Your task to perform on an android device: turn on the 24-hour format for clock Image 0: 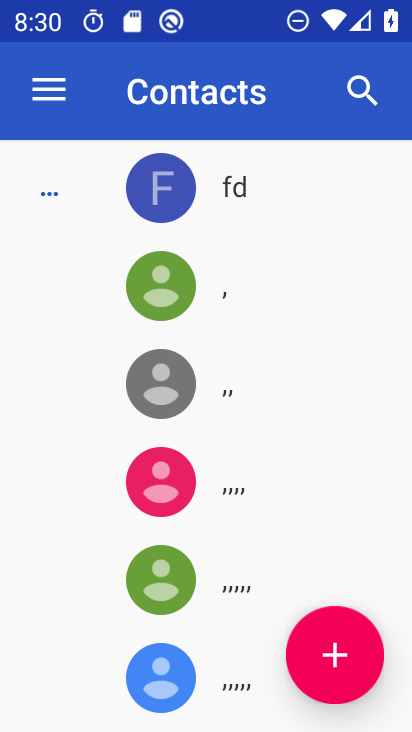
Step 0: press home button
Your task to perform on an android device: turn on the 24-hour format for clock Image 1: 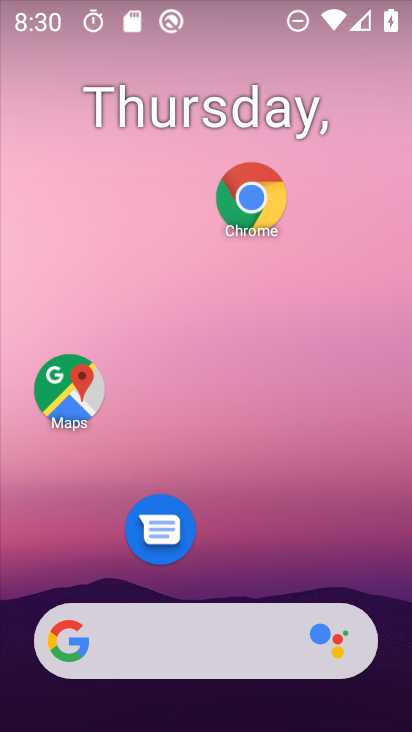
Step 1: drag from (220, 573) to (224, 85)
Your task to perform on an android device: turn on the 24-hour format for clock Image 2: 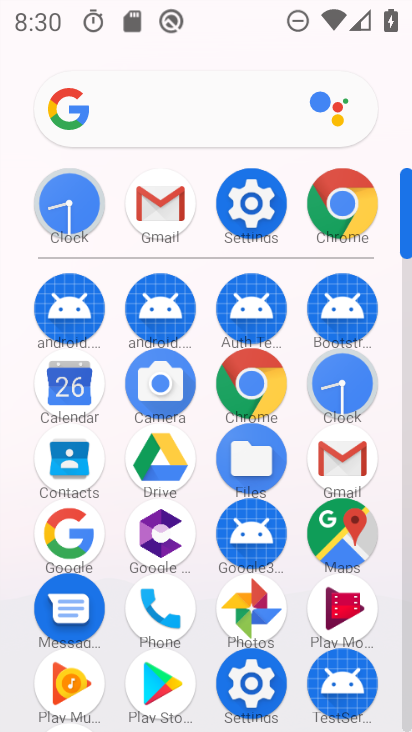
Step 2: click (59, 229)
Your task to perform on an android device: turn on the 24-hour format for clock Image 3: 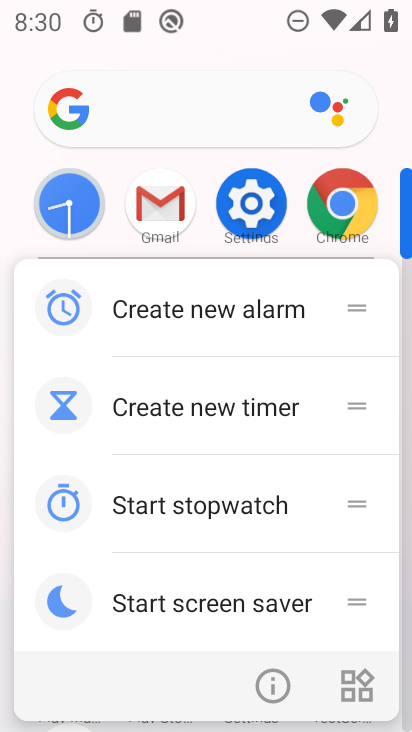
Step 3: click (236, 200)
Your task to perform on an android device: turn on the 24-hour format for clock Image 4: 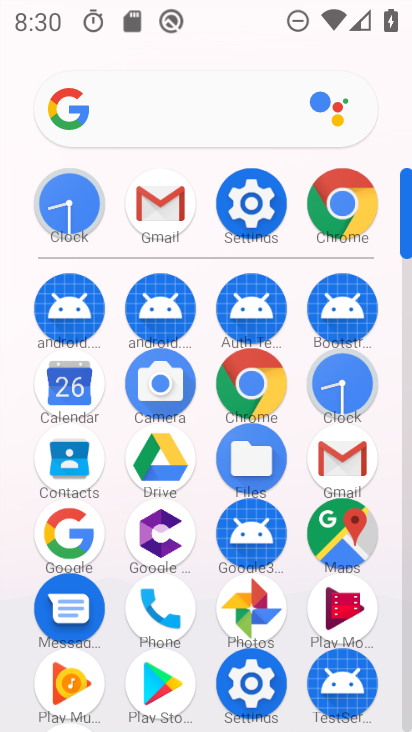
Step 4: click (76, 207)
Your task to perform on an android device: turn on the 24-hour format for clock Image 5: 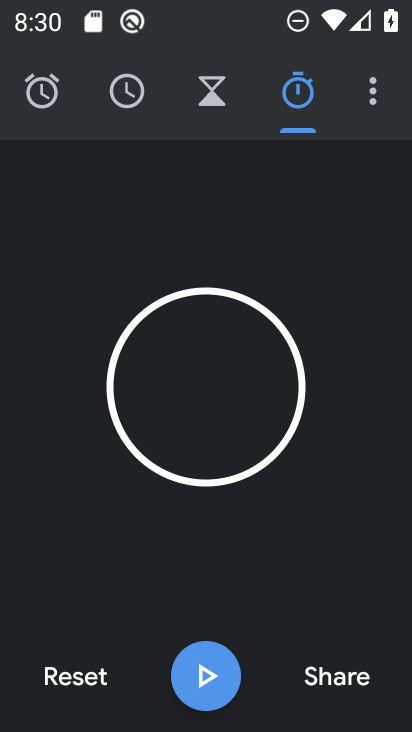
Step 5: click (367, 86)
Your task to perform on an android device: turn on the 24-hour format for clock Image 6: 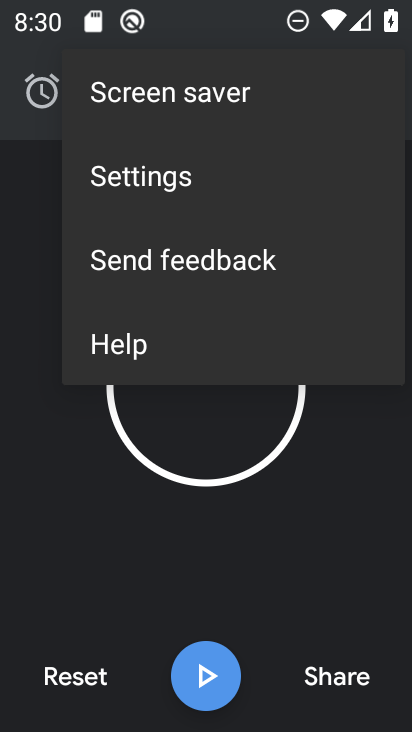
Step 6: click (216, 192)
Your task to perform on an android device: turn on the 24-hour format for clock Image 7: 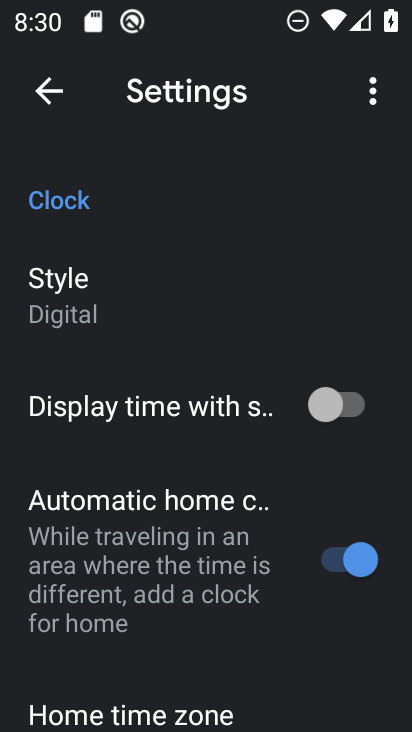
Step 7: drag from (217, 624) to (272, 298)
Your task to perform on an android device: turn on the 24-hour format for clock Image 8: 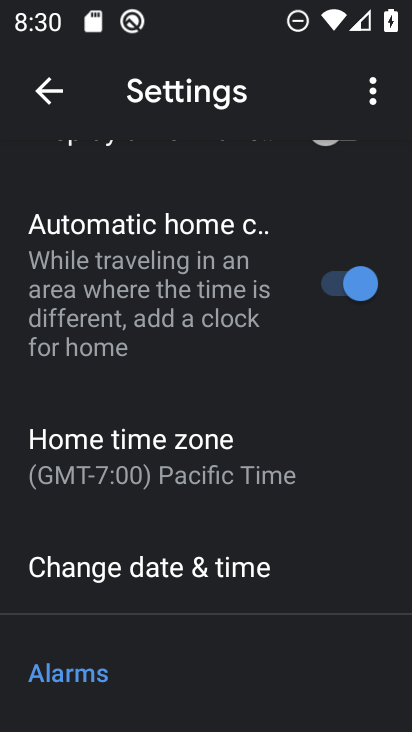
Step 8: drag from (205, 641) to (171, 323)
Your task to perform on an android device: turn on the 24-hour format for clock Image 9: 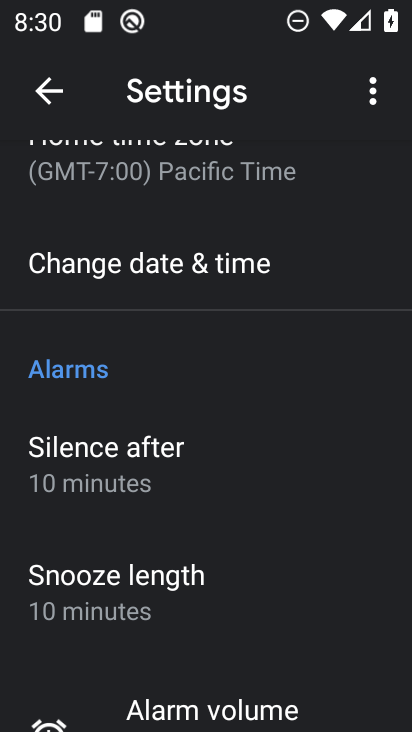
Step 9: drag from (224, 641) to (210, 338)
Your task to perform on an android device: turn on the 24-hour format for clock Image 10: 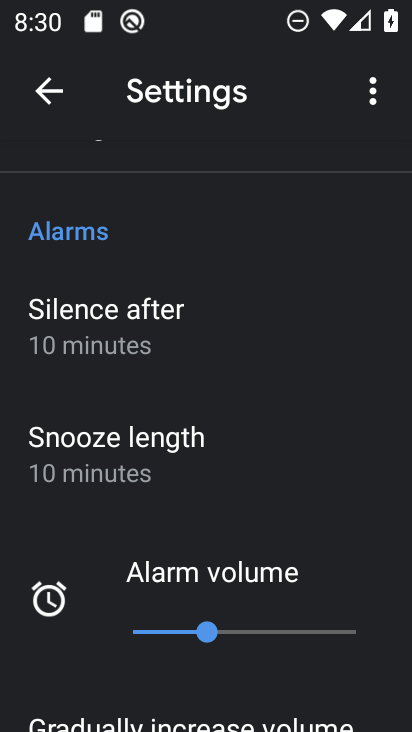
Step 10: drag from (258, 549) to (251, 434)
Your task to perform on an android device: turn on the 24-hour format for clock Image 11: 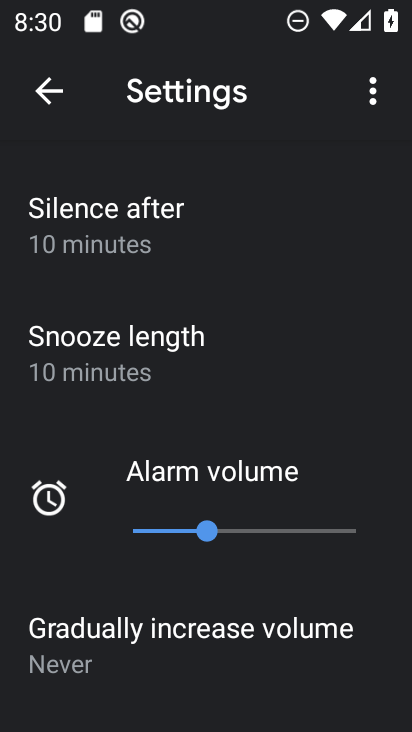
Step 11: drag from (260, 562) to (255, 224)
Your task to perform on an android device: turn on the 24-hour format for clock Image 12: 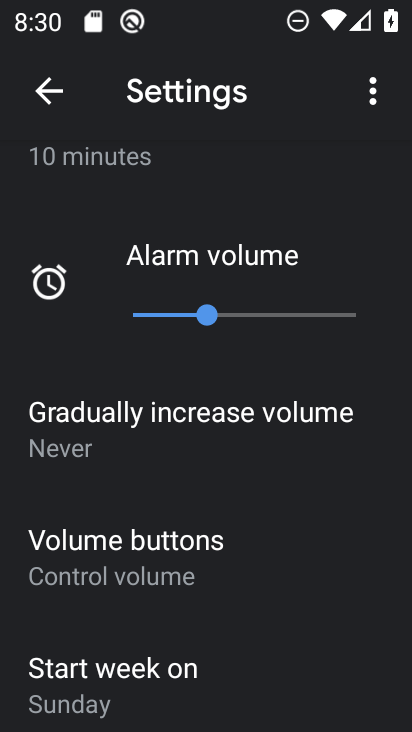
Step 12: drag from (230, 277) to (230, 641)
Your task to perform on an android device: turn on the 24-hour format for clock Image 13: 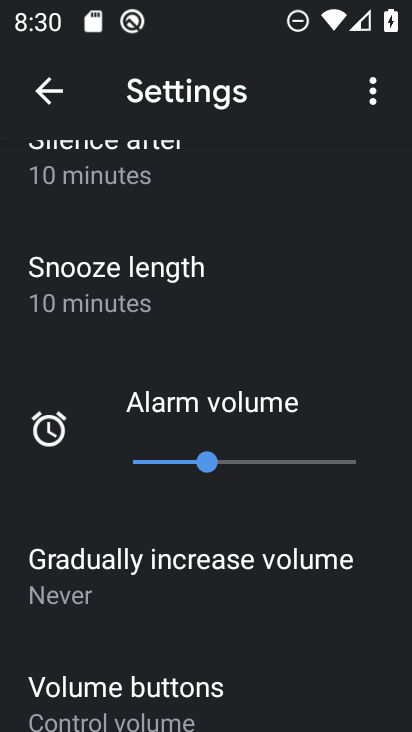
Step 13: drag from (244, 272) to (246, 725)
Your task to perform on an android device: turn on the 24-hour format for clock Image 14: 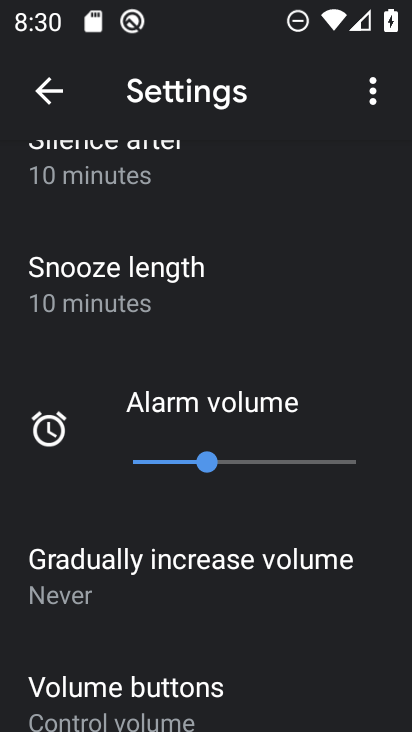
Step 14: drag from (222, 248) to (222, 603)
Your task to perform on an android device: turn on the 24-hour format for clock Image 15: 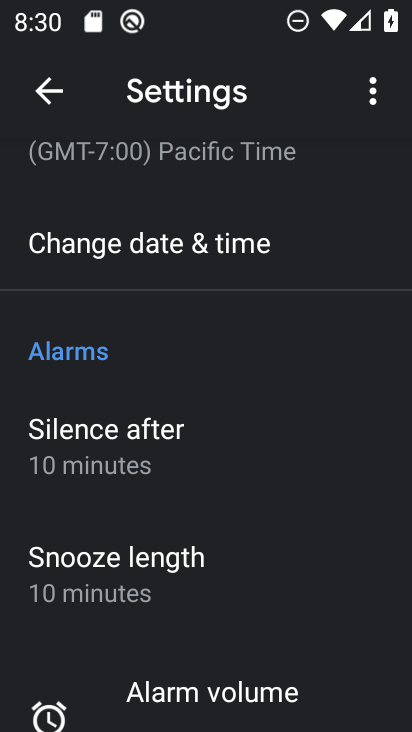
Step 15: click (187, 247)
Your task to perform on an android device: turn on the 24-hour format for clock Image 16: 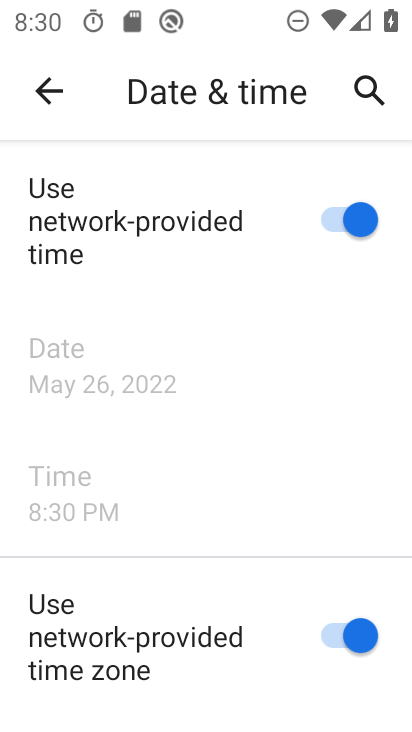
Step 16: drag from (261, 688) to (269, 250)
Your task to perform on an android device: turn on the 24-hour format for clock Image 17: 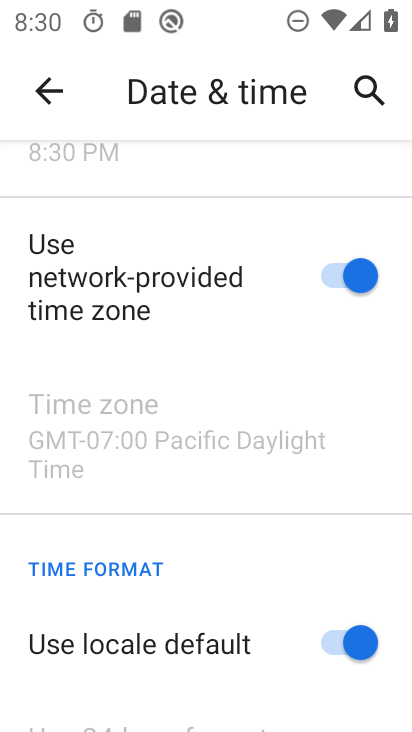
Step 17: drag from (199, 683) to (201, 329)
Your task to perform on an android device: turn on the 24-hour format for clock Image 18: 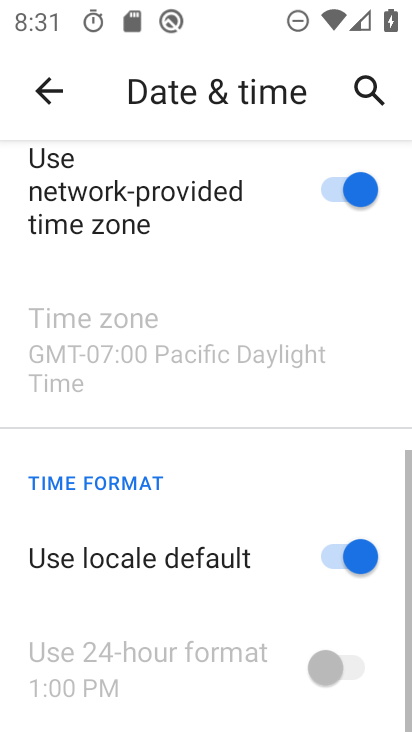
Step 18: click (320, 571)
Your task to perform on an android device: turn on the 24-hour format for clock Image 19: 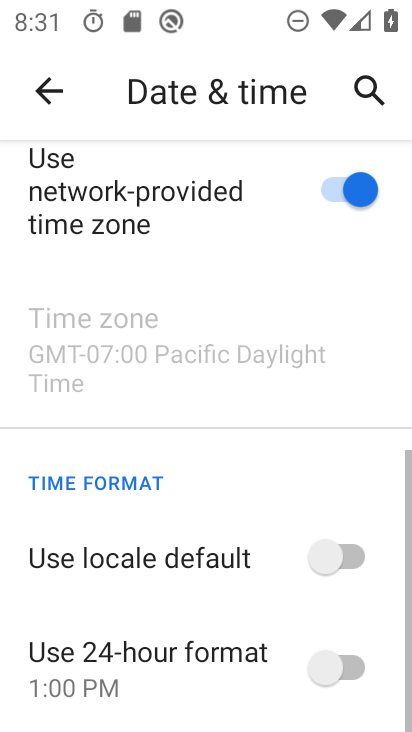
Step 19: click (351, 671)
Your task to perform on an android device: turn on the 24-hour format for clock Image 20: 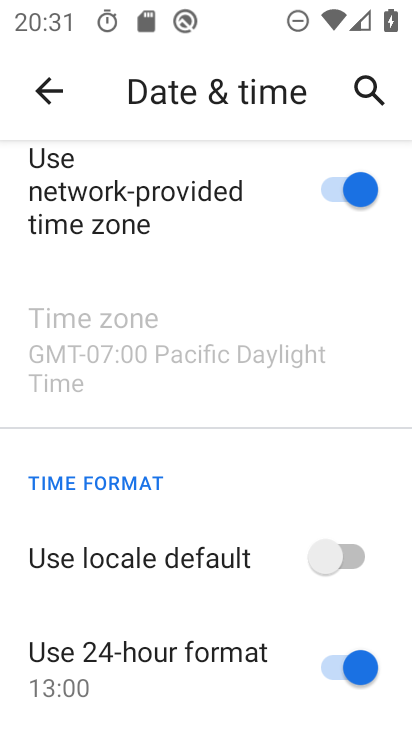
Step 20: task complete